Your task to perform on an android device: Go to notification settings Image 0: 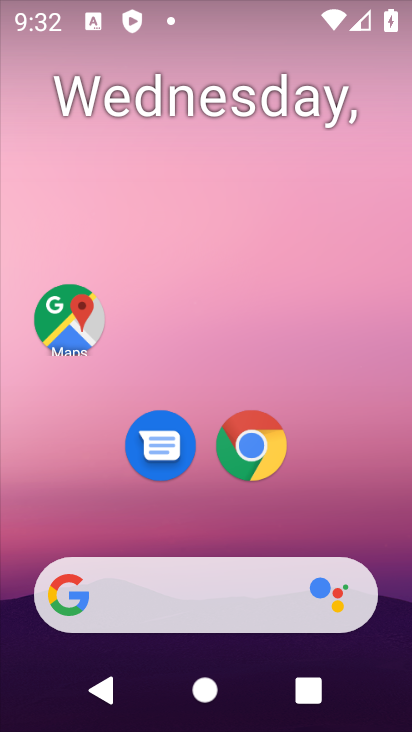
Step 0: drag from (391, 504) to (411, 535)
Your task to perform on an android device: Go to notification settings Image 1: 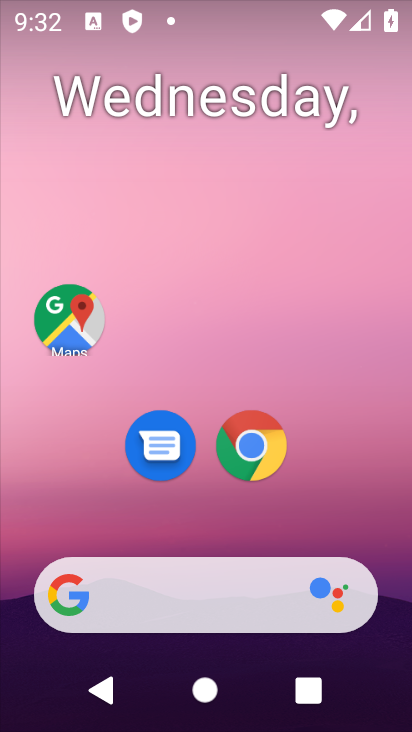
Step 1: drag from (305, 503) to (304, 28)
Your task to perform on an android device: Go to notification settings Image 2: 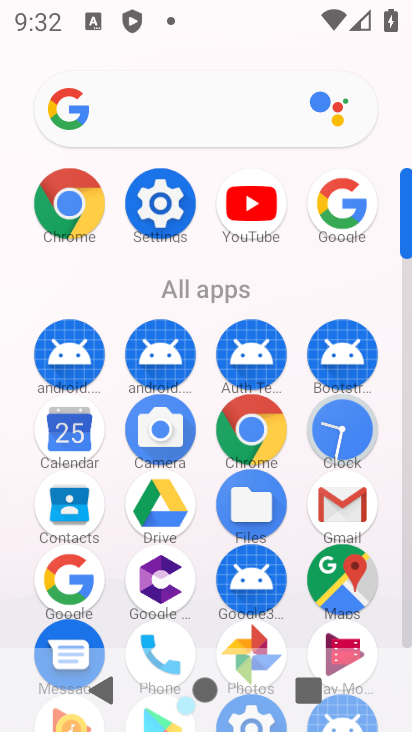
Step 2: click (170, 215)
Your task to perform on an android device: Go to notification settings Image 3: 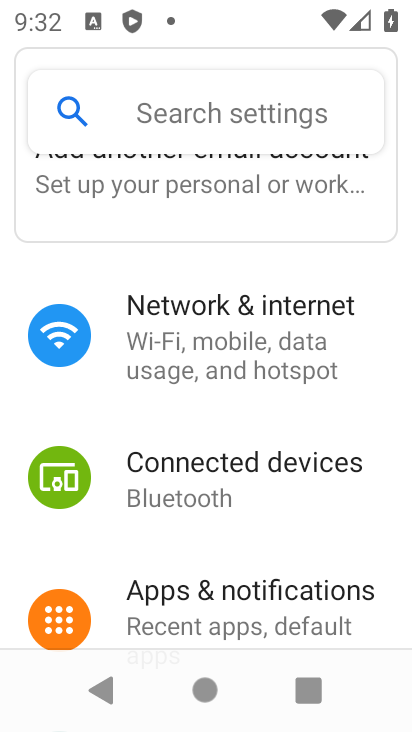
Step 3: click (305, 604)
Your task to perform on an android device: Go to notification settings Image 4: 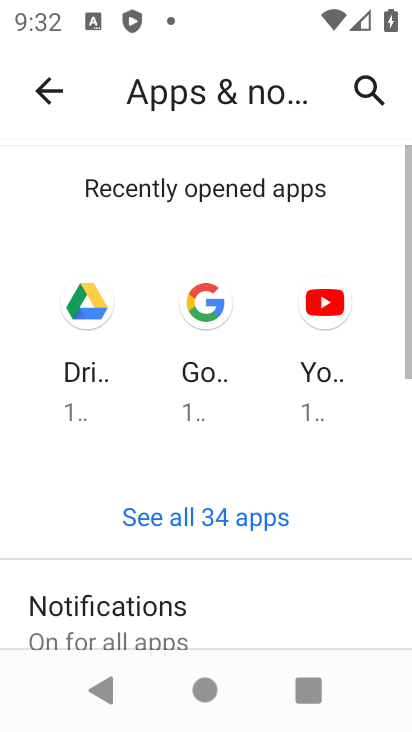
Step 4: drag from (332, 528) to (309, 159)
Your task to perform on an android device: Go to notification settings Image 5: 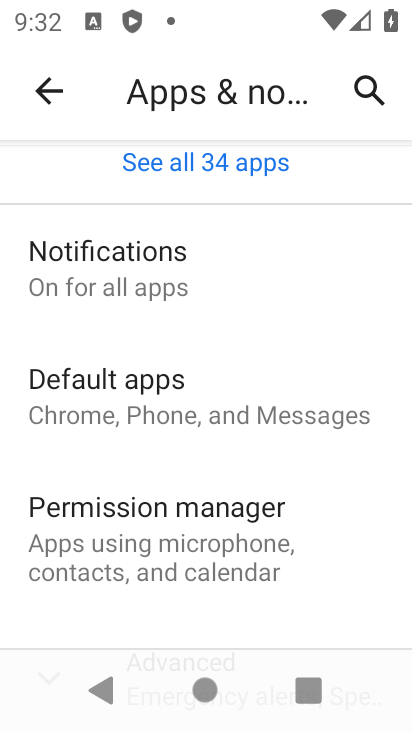
Step 5: click (107, 258)
Your task to perform on an android device: Go to notification settings Image 6: 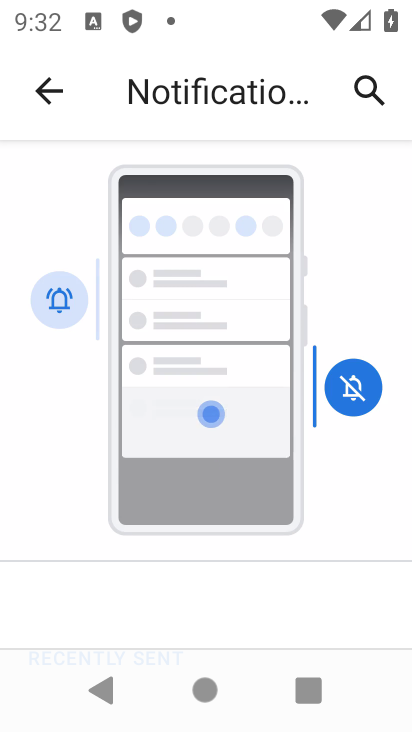
Step 6: task complete